Your task to perform on an android device: Do I have any events tomorrow? Image 0: 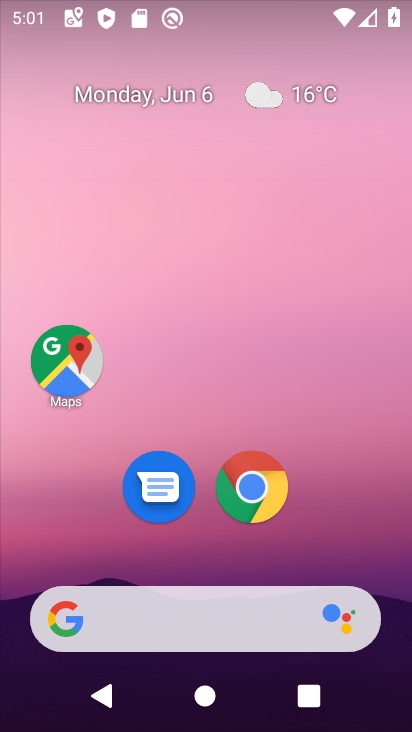
Step 0: drag from (314, 527) to (316, 1)
Your task to perform on an android device: Do I have any events tomorrow? Image 1: 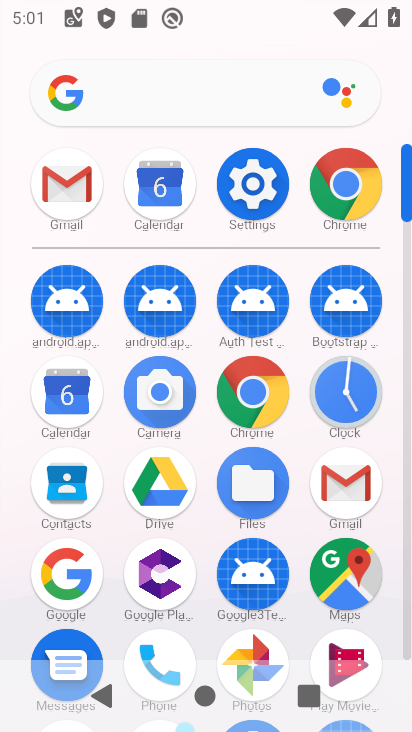
Step 1: click (83, 393)
Your task to perform on an android device: Do I have any events tomorrow? Image 2: 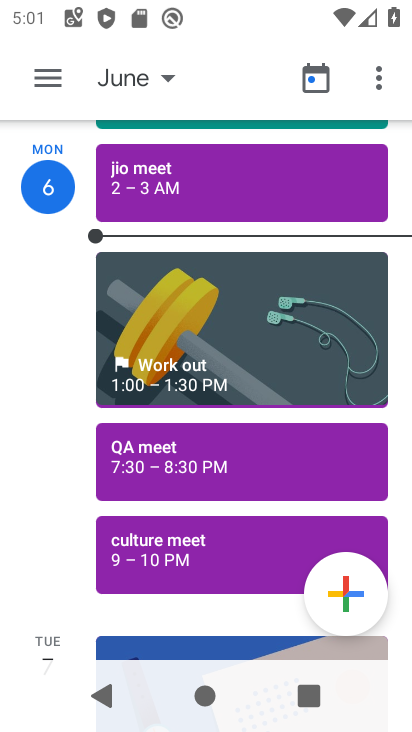
Step 2: click (50, 73)
Your task to perform on an android device: Do I have any events tomorrow? Image 3: 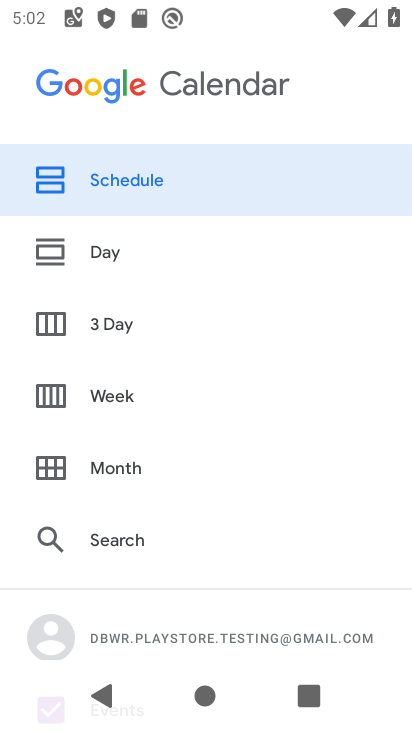
Step 3: click (139, 180)
Your task to perform on an android device: Do I have any events tomorrow? Image 4: 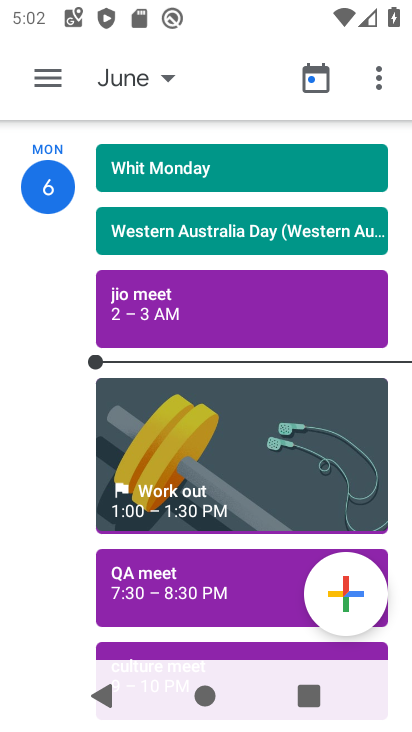
Step 4: task complete